Your task to perform on an android device: uninstall "Flipkart Online Shopping App" Image 0: 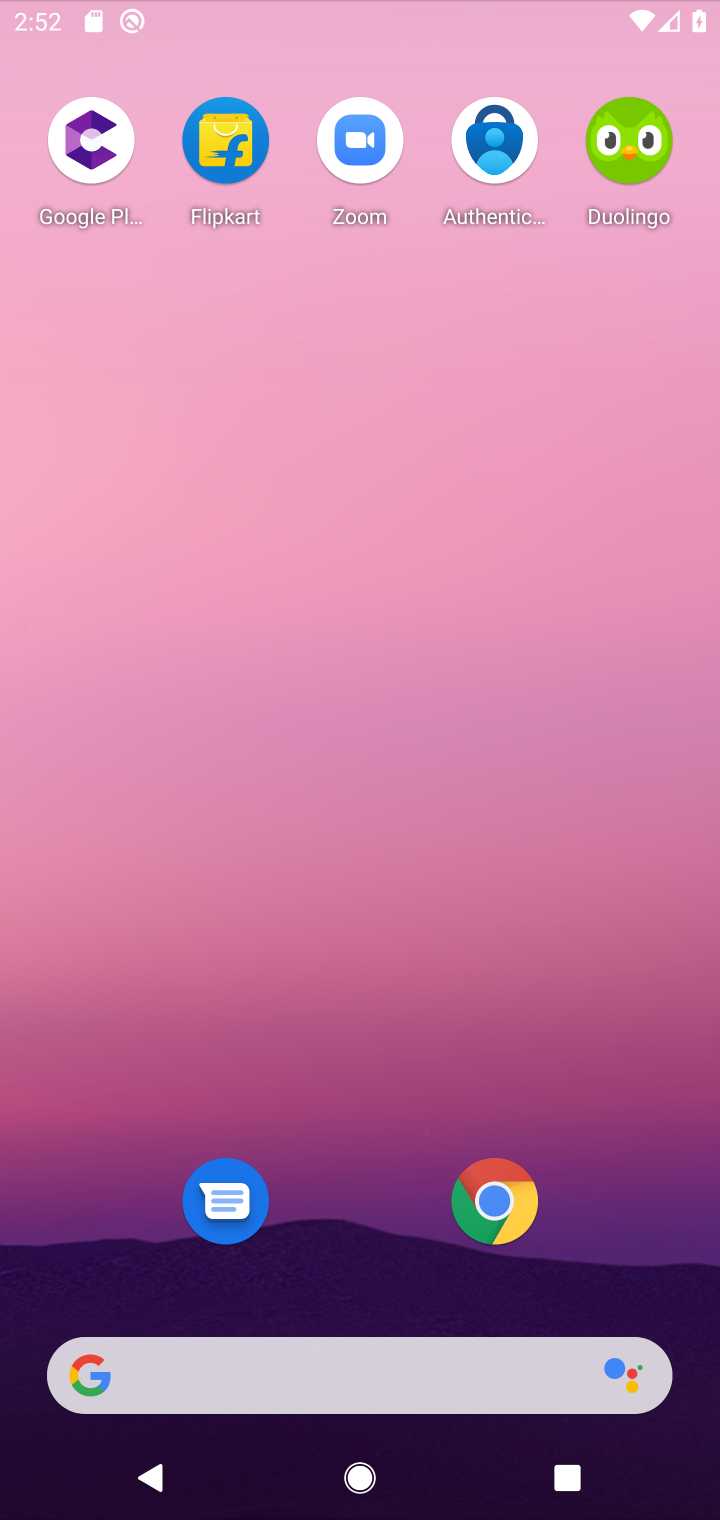
Step 0: press home button
Your task to perform on an android device: uninstall "Flipkart Online Shopping App" Image 1: 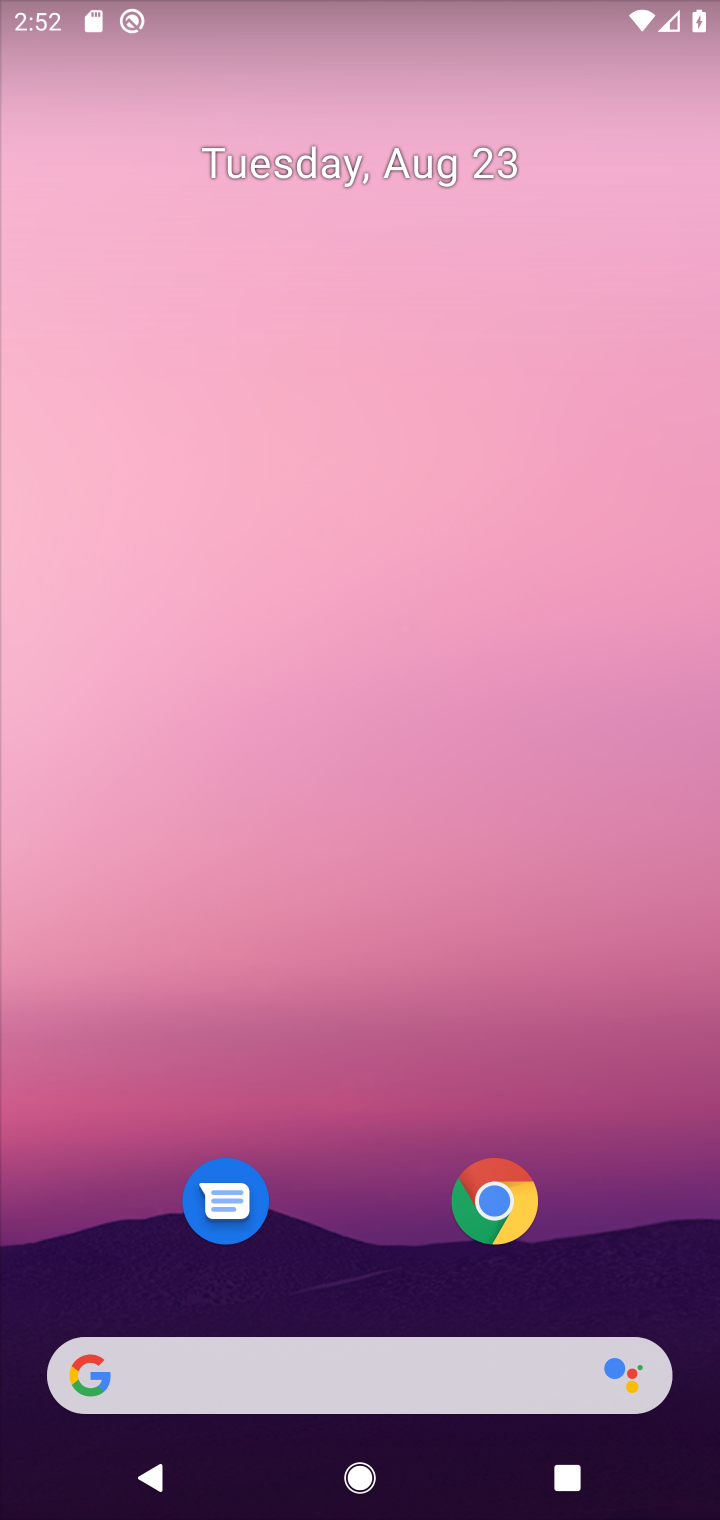
Step 1: drag from (657, 1144) to (578, 207)
Your task to perform on an android device: uninstall "Flipkart Online Shopping App" Image 2: 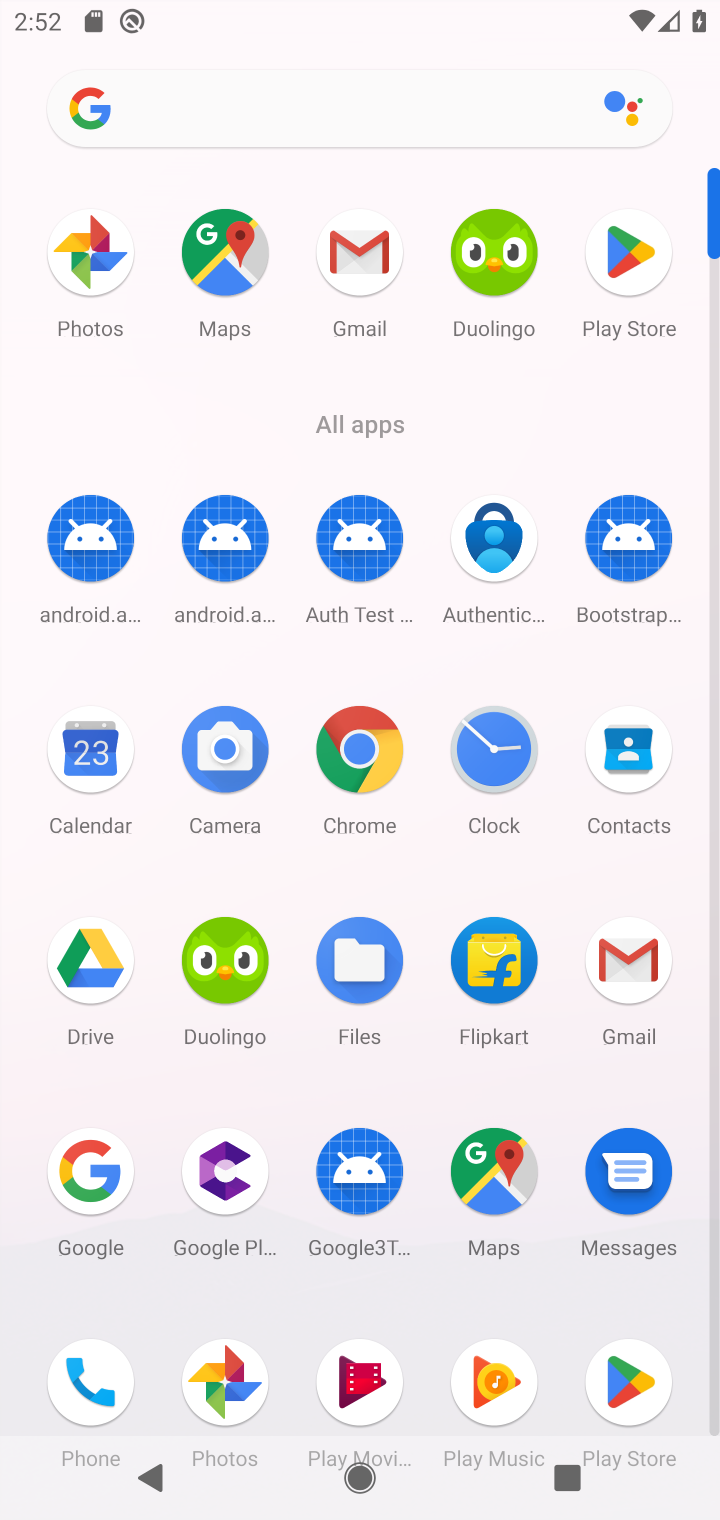
Step 2: click (629, 1382)
Your task to perform on an android device: uninstall "Flipkart Online Shopping App" Image 3: 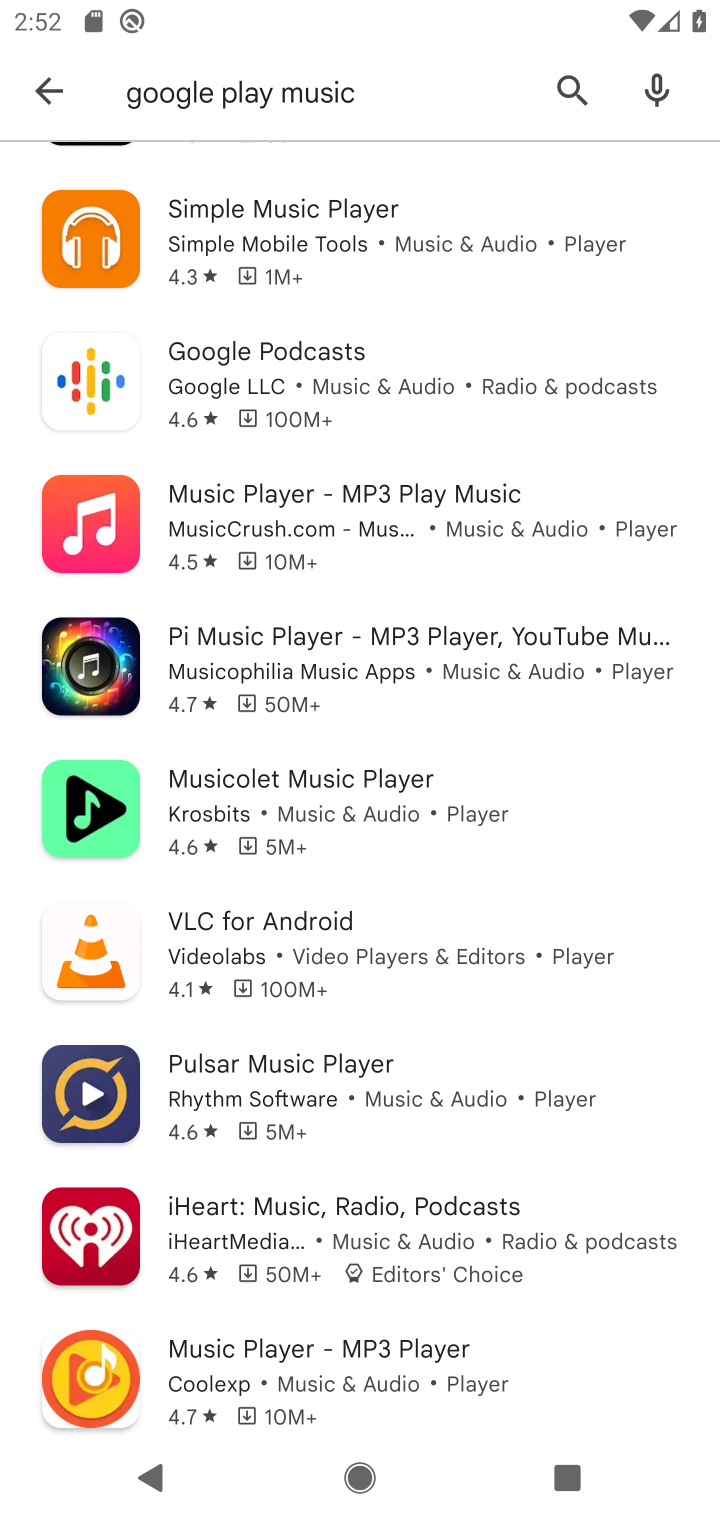
Step 3: click (577, 85)
Your task to perform on an android device: uninstall "Flipkart Online Shopping App" Image 4: 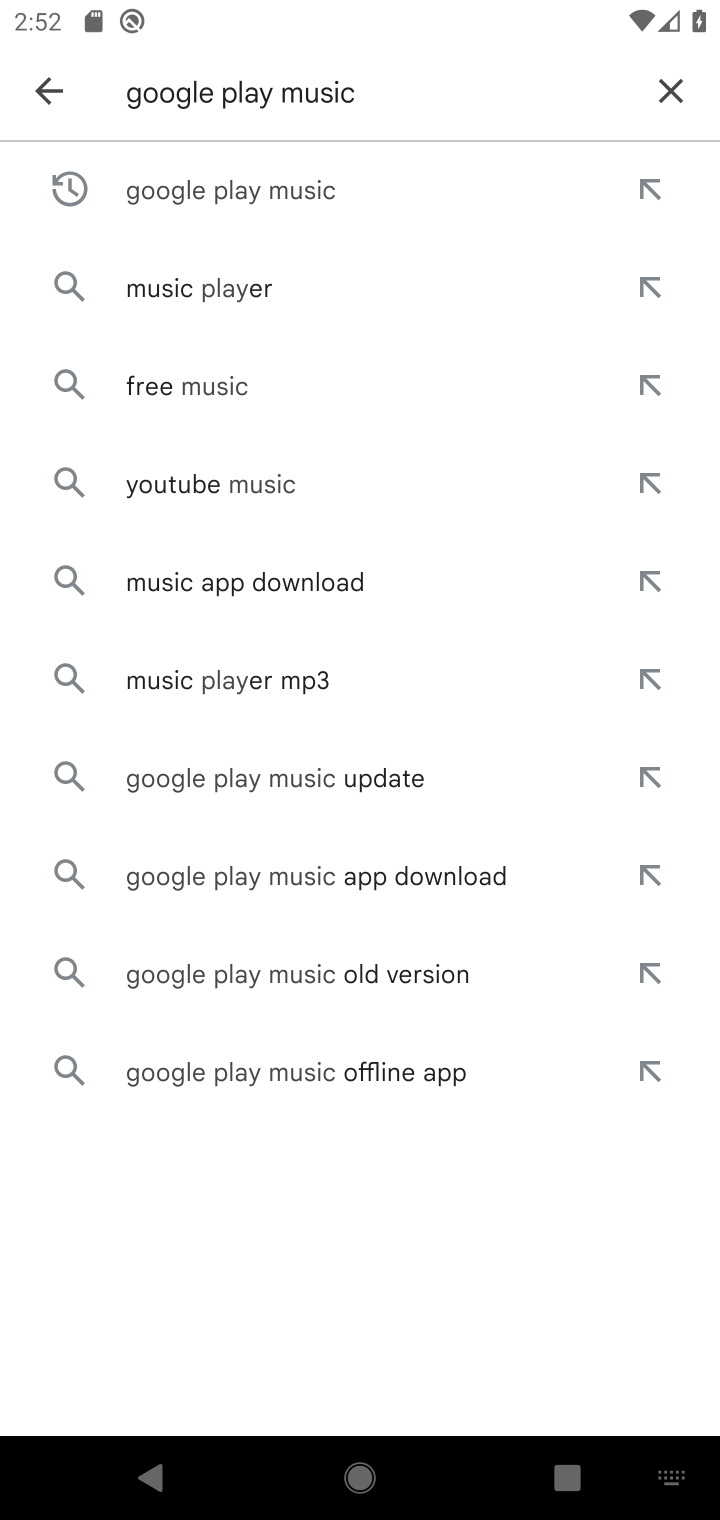
Step 4: click (661, 85)
Your task to perform on an android device: uninstall "Flipkart Online Shopping App" Image 5: 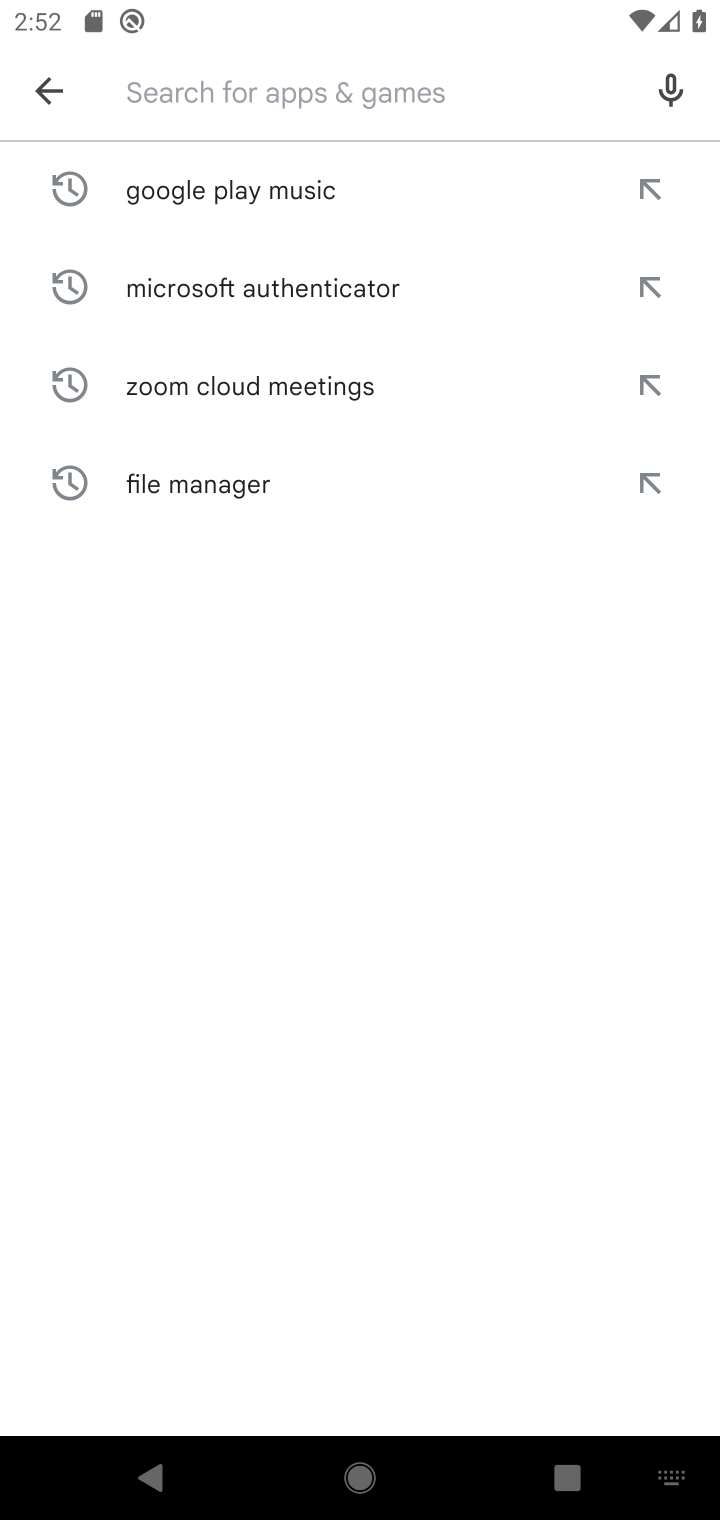
Step 5: type "Flipkart Online Shopping App"
Your task to perform on an android device: uninstall "Flipkart Online Shopping App" Image 6: 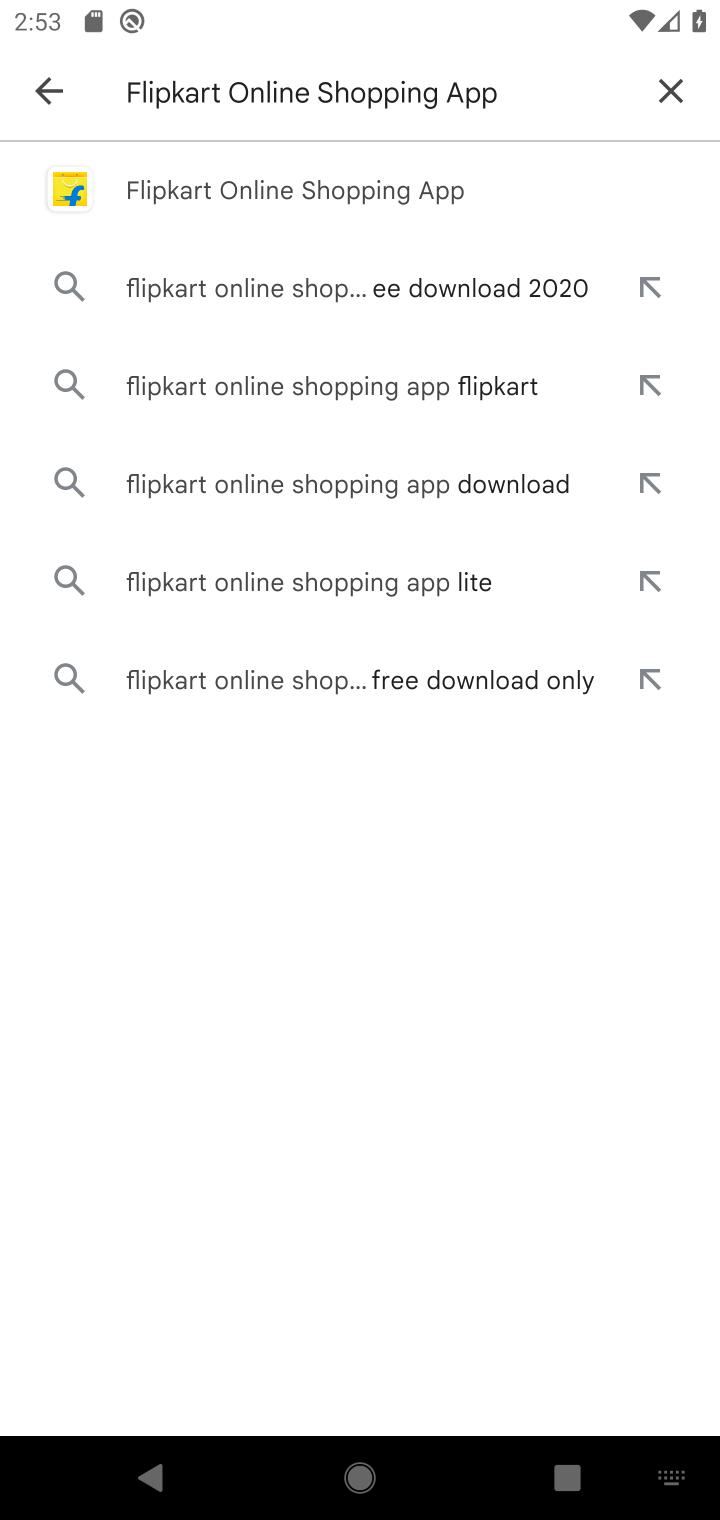
Step 6: click (240, 186)
Your task to perform on an android device: uninstall "Flipkart Online Shopping App" Image 7: 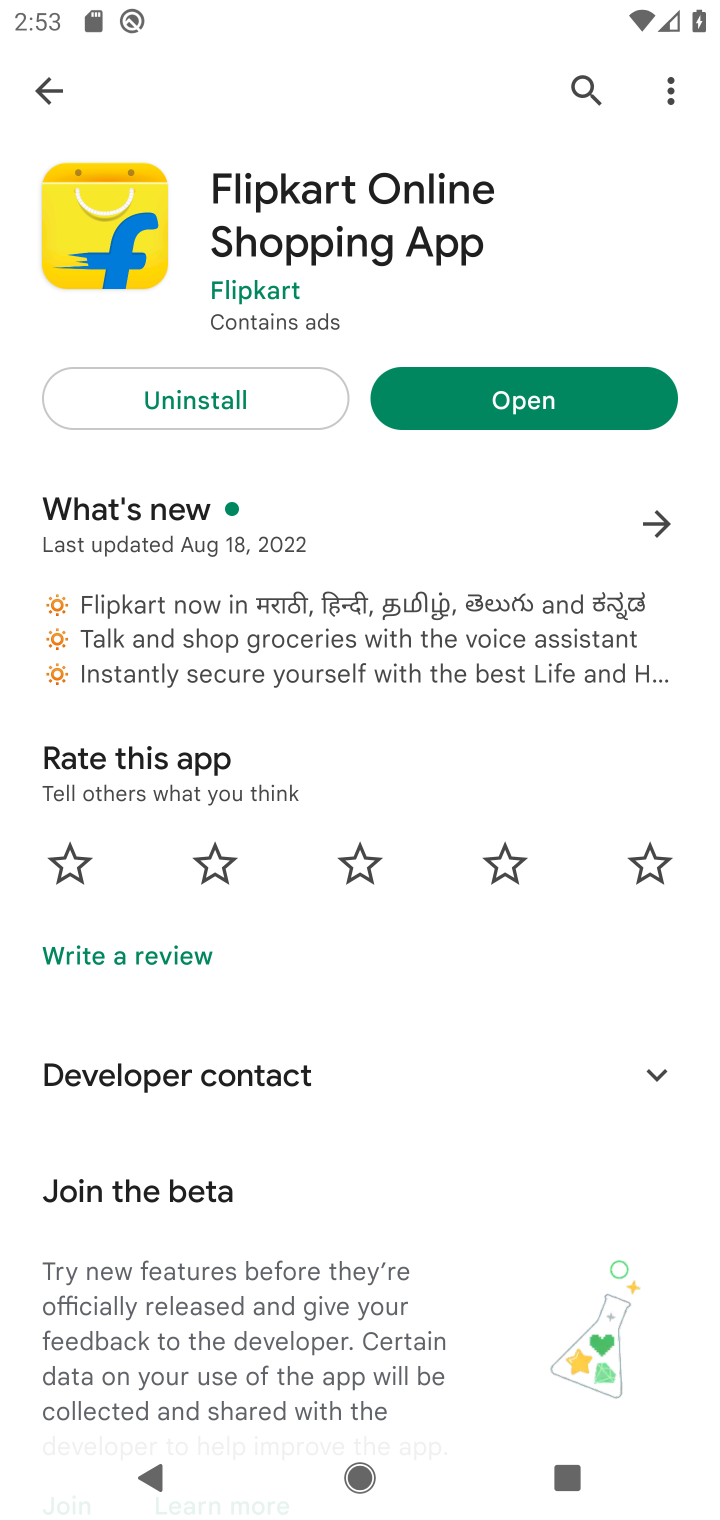
Step 7: click (171, 399)
Your task to perform on an android device: uninstall "Flipkart Online Shopping App" Image 8: 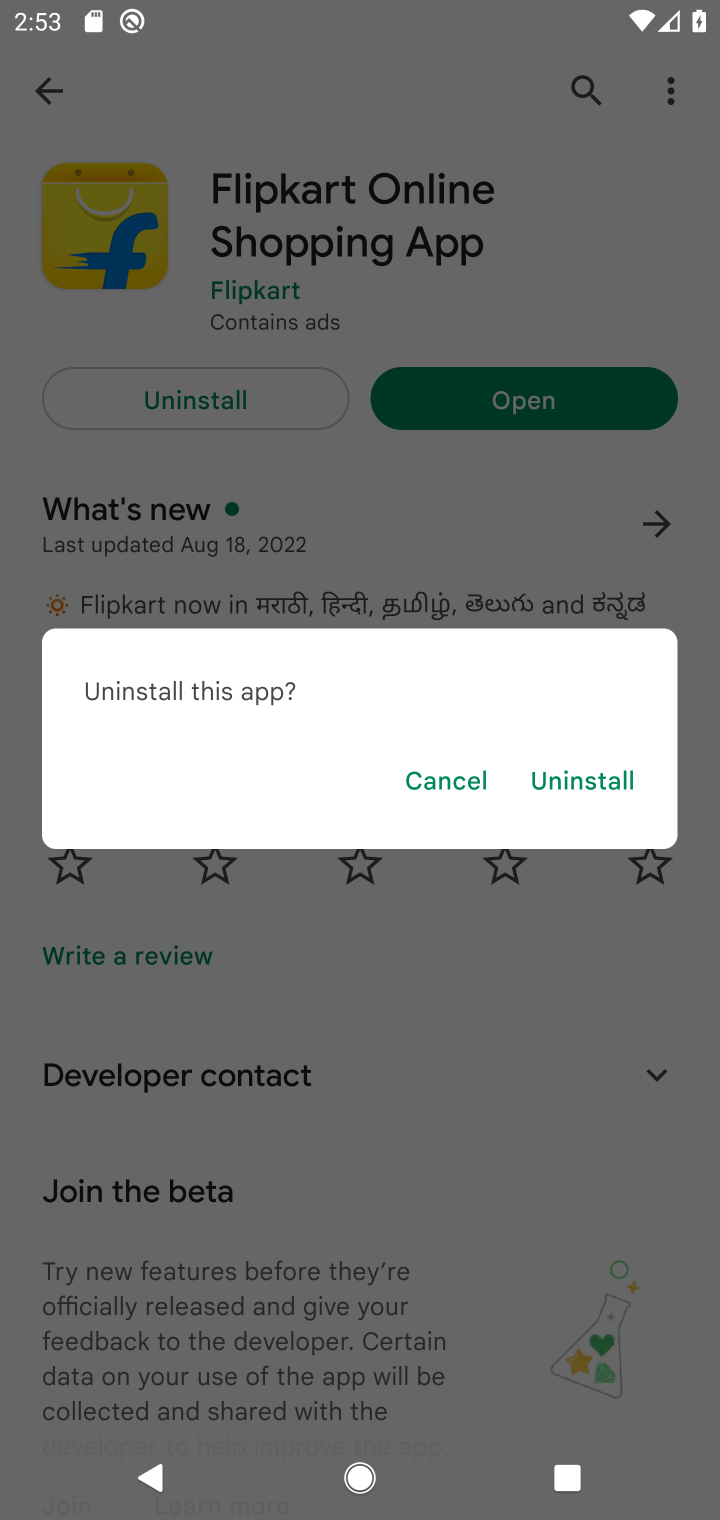
Step 8: click (557, 780)
Your task to perform on an android device: uninstall "Flipkart Online Shopping App" Image 9: 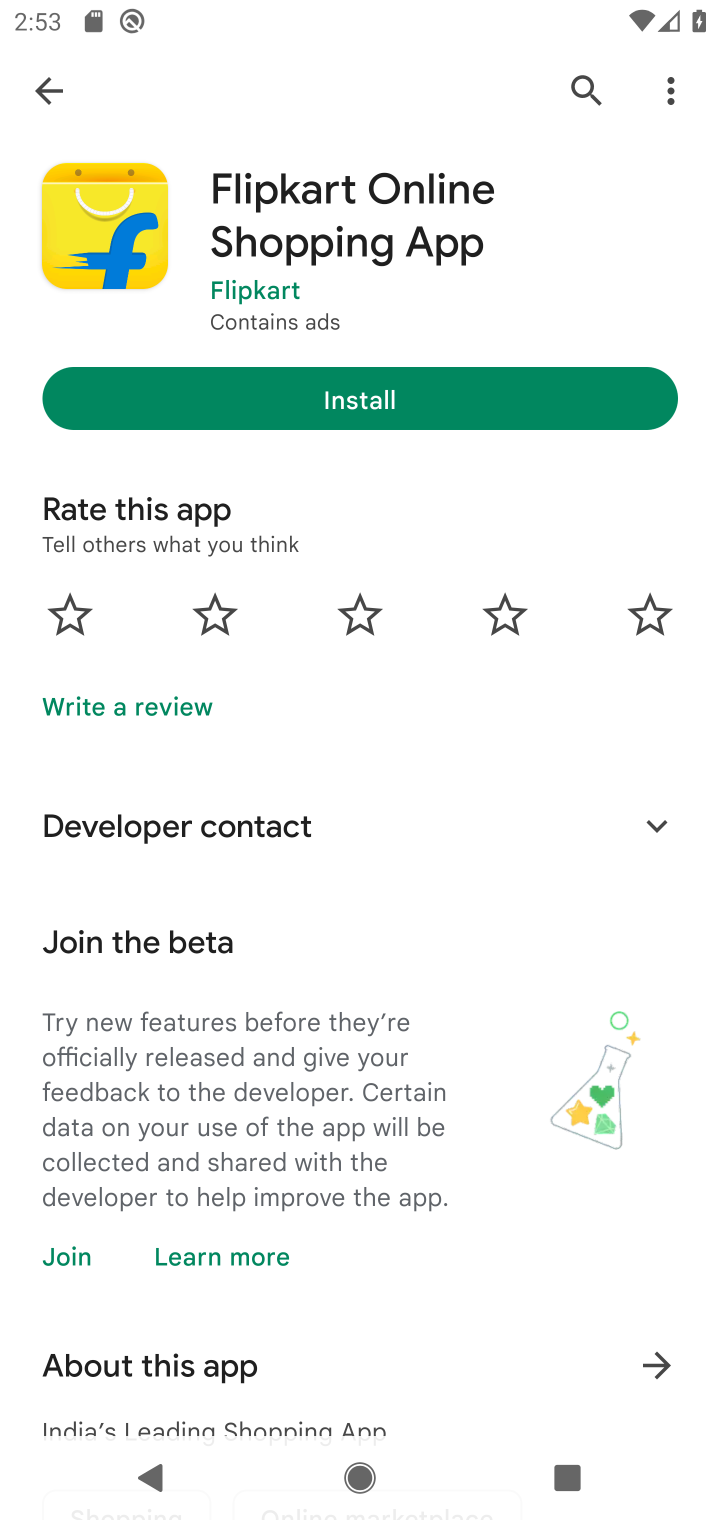
Step 9: task complete